Your task to perform on an android device: all mails in gmail Image 0: 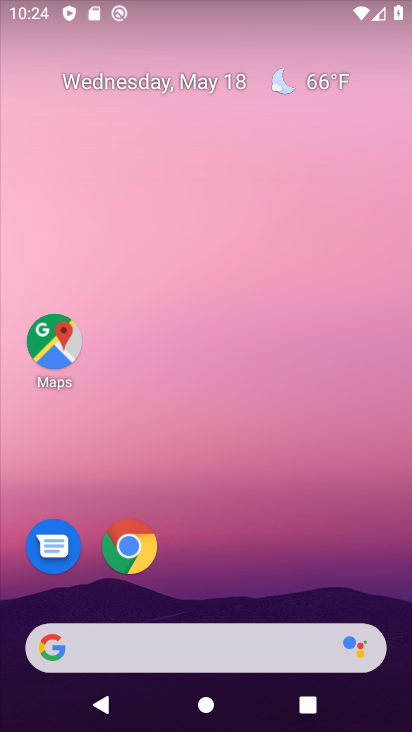
Step 0: drag from (221, 618) to (233, 19)
Your task to perform on an android device: all mails in gmail Image 1: 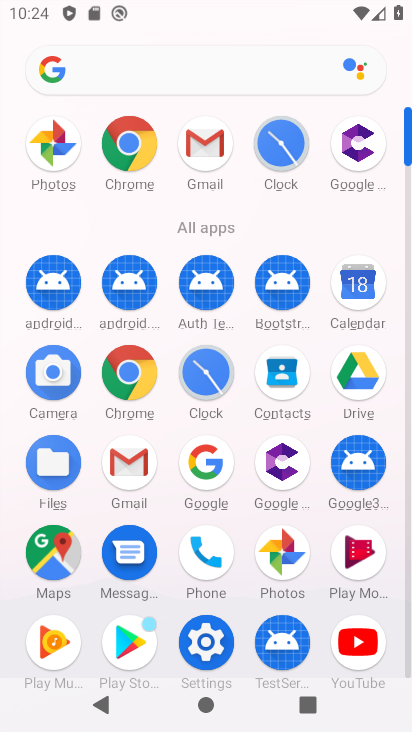
Step 1: click (210, 162)
Your task to perform on an android device: all mails in gmail Image 2: 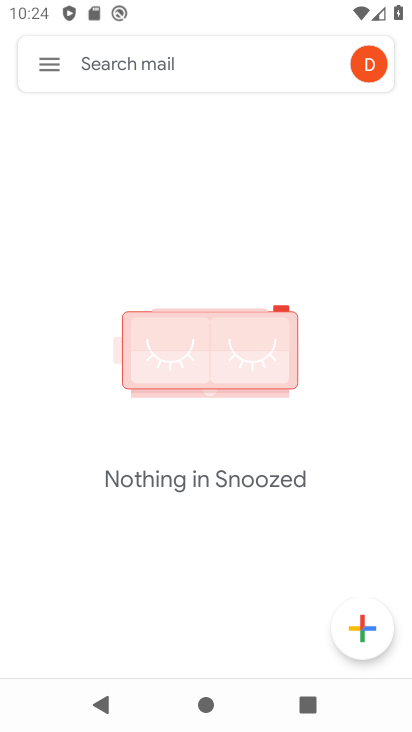
Step 2: click (53, 56)
Your task to perform on an android device: all mails in gmail Image 3: 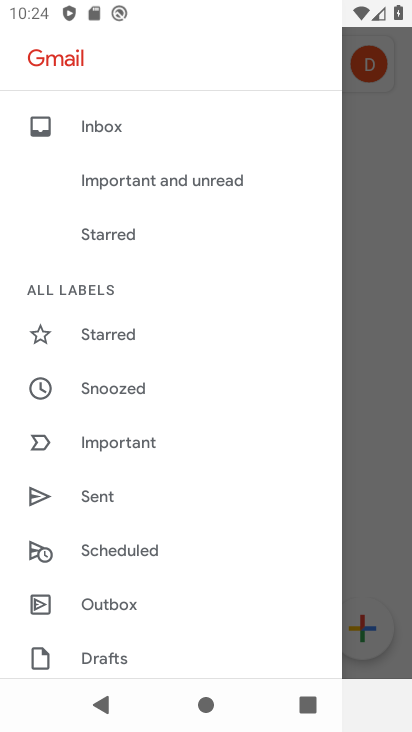
Step 3: drag from (67, 591) to (113, 95)
Your task to perform on an android device: all mails in gmail Image 4: 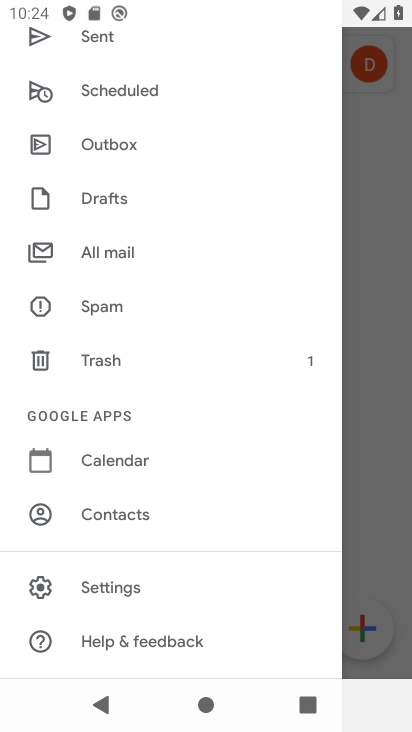
Step 4: click (110, 265)
Your task to perform on an android device: all mails in gmail Image 5: 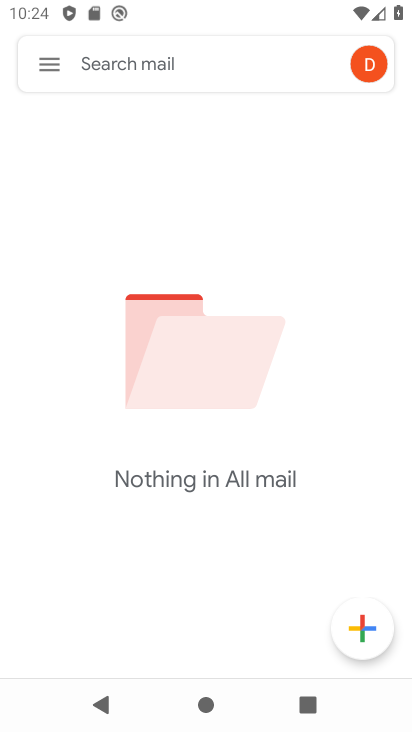
Step 5: task complete